Your task to perform on an android device: Clear the cart on costco. Image 0: 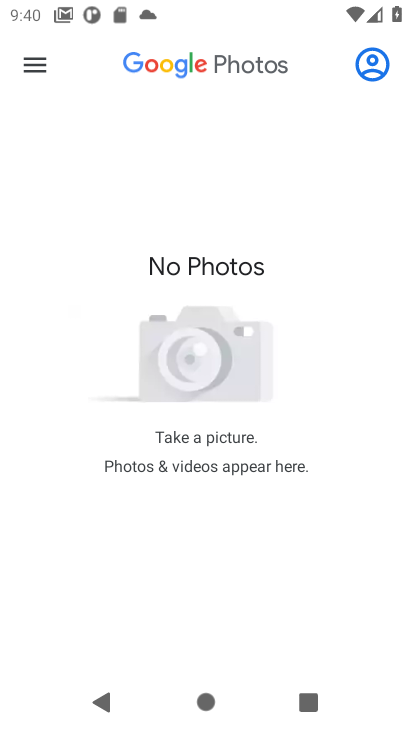
Step 0: press home button
Your task to perform on an android device: Clear the cart on costco. Image 1: 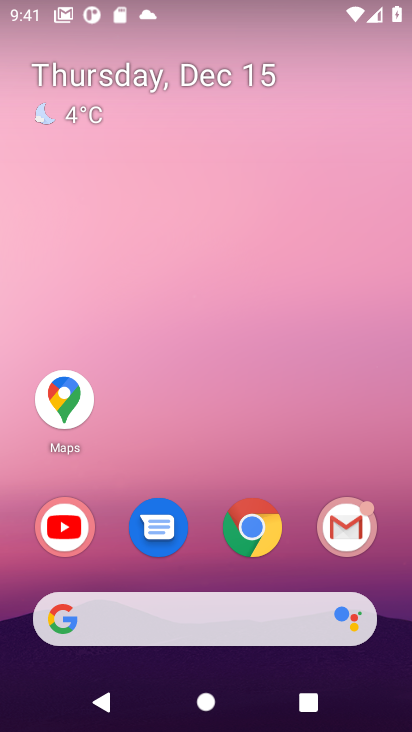
Step 1: click (260, 552)
Your task to perform on an android device: Clear the cart on costco. Image 2: 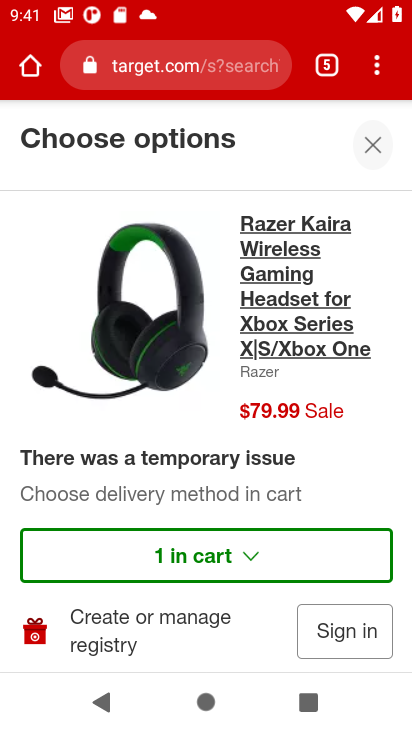
Step 2: click (216, 77)
Your task to perform on an android device: Clear the cart on costco. Image 3: 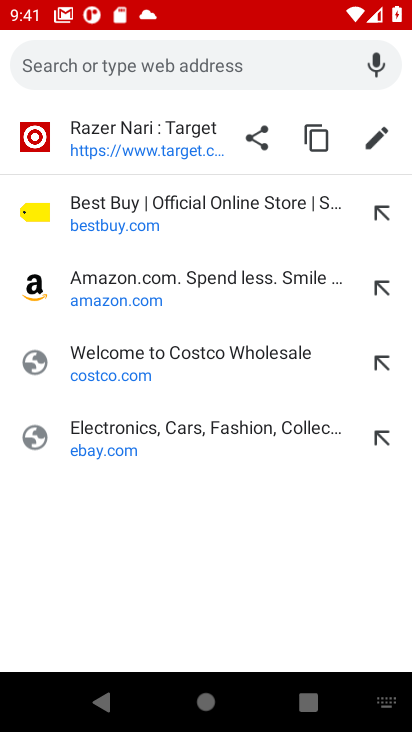
Step 3: click (287, 373)
Your task to perform on an android device: Clear the cart on costco. Image 4: 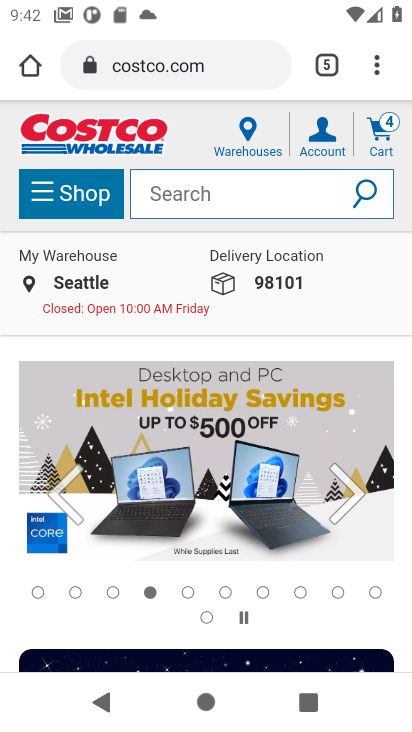
Step 4: click (371, 136)
Your task to perform on an android device: Clear the cart on costco. Image 5: 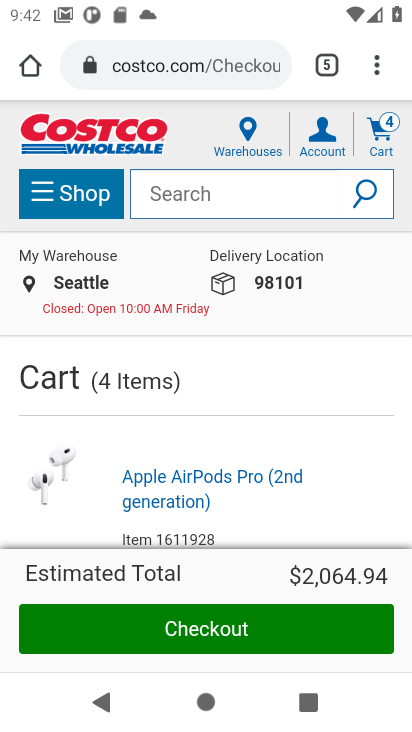
Step 5: drag from (247, 439) to (240, 334)
Your task to perform on an android device: Clear the cart on costco. Image 6: 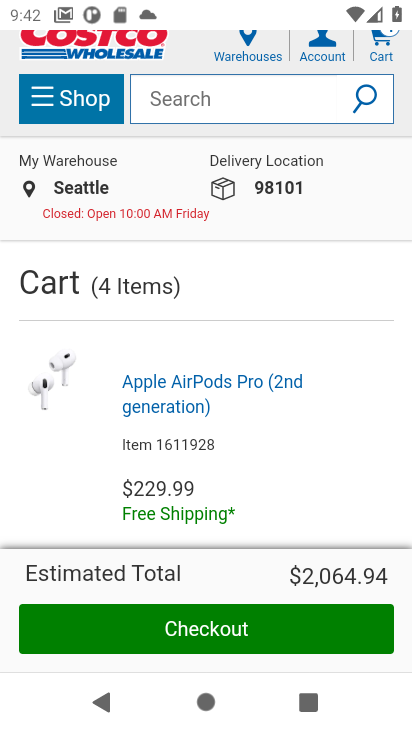
Step 6: drag from (236, 484) to (197, 200)
Your task to perform on an android device: Clear the cart on costco. Image 7: 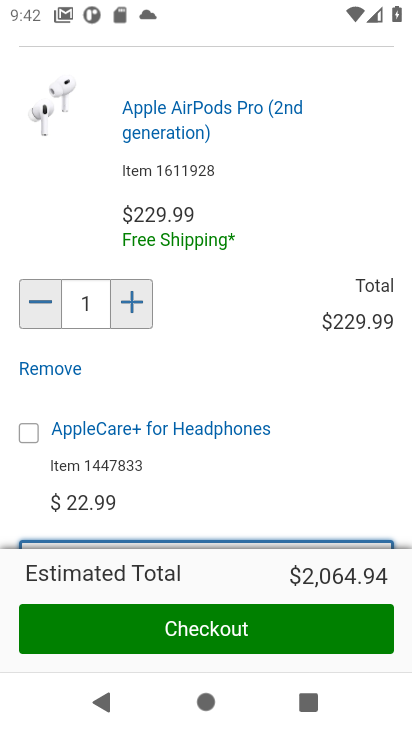
Step 7: drag from (300, 449) to (282, 95)
Your task to perform on an android device: Clear the cart on costco. Image 8: 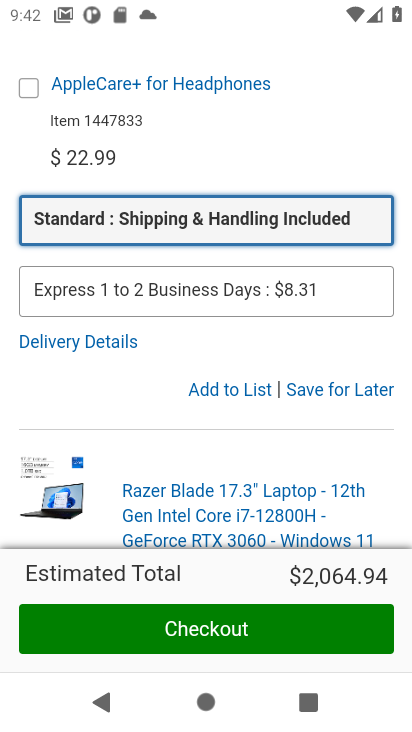
Step 8: drag from (185, 455) to (172, 171)
Your task to perform on an android device: Clear the cart on costco. Image 9: 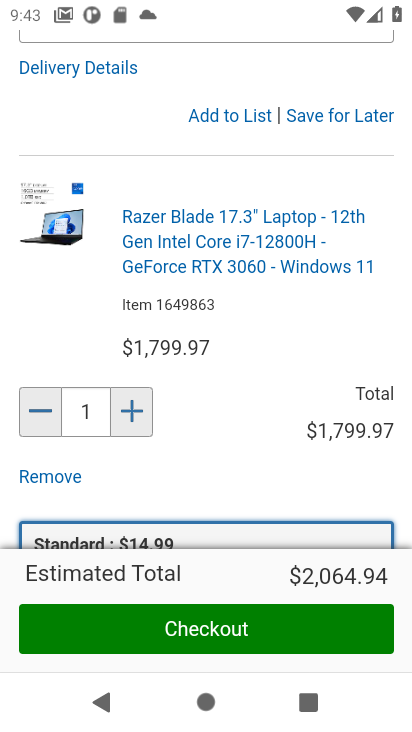
Step 9: drag from (215, 494) to (207, 415)
Your task to perform on an android device: Clear the cart on costco. Image 10: 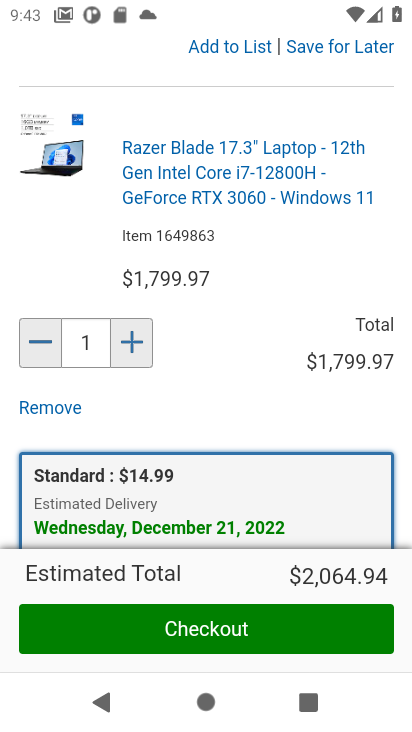
Step 10: click (69, 396)
Your task to perform on an android device: Clear the cart on costco. Image 11: 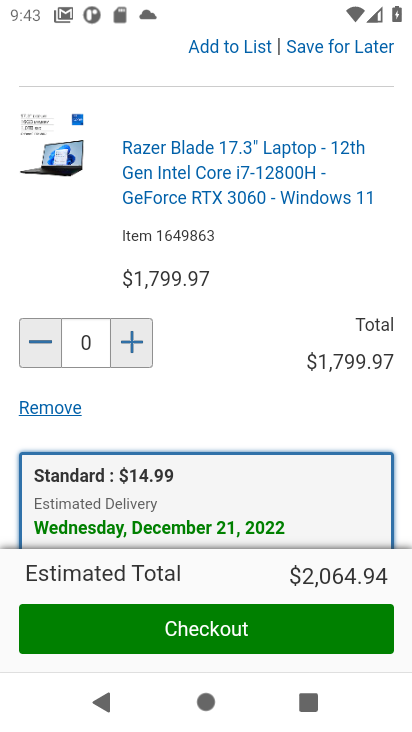
Step 11: click (53, 408)
Your task to perform on an android device: Clear the cart on costco. Image 12: 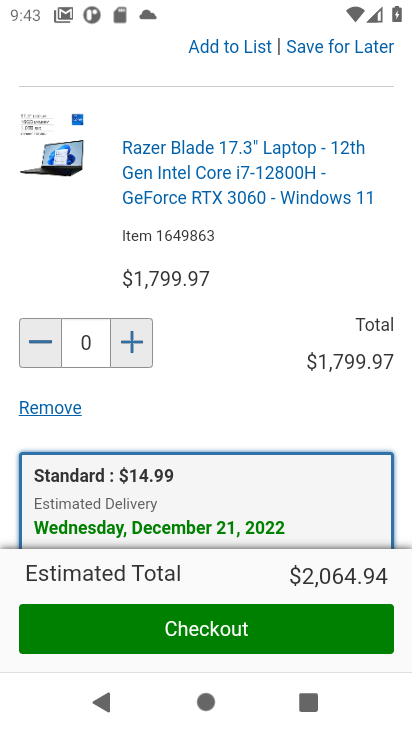
Step 12: drag from (132, 410) to (152, 95)
Your task to perform on an android device: Clear the cart on costco. Image 13: 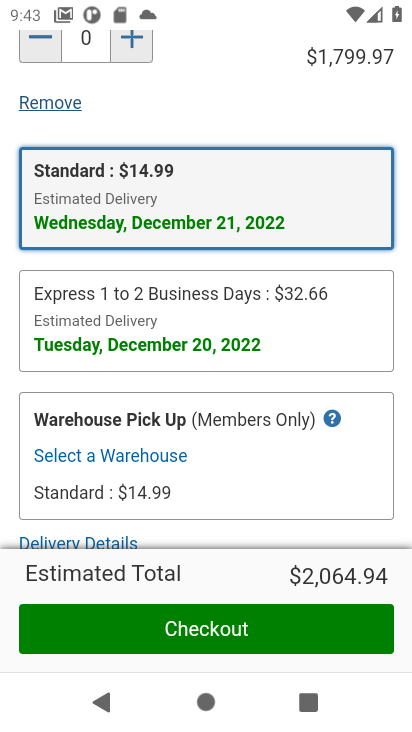
Step 13: drag from (152, 95) to (231, 548)
Your task to perform on an android device: Clear the cart on costco. Image 14: 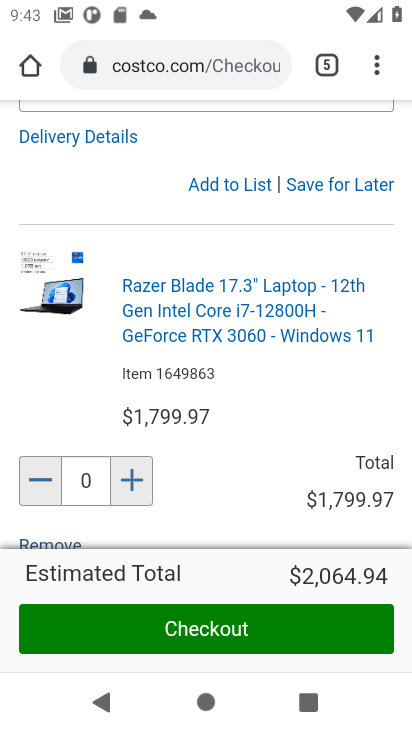
Step 14: drag from (147, 185) to (319, 630)
Your task to perform on an android device: Clear the cart on costco. Image 15: 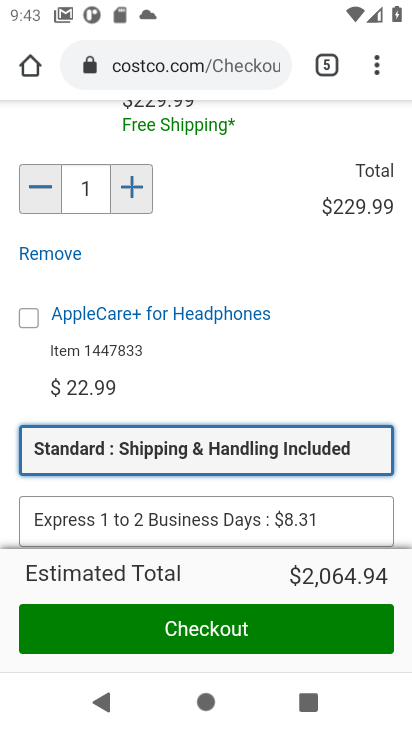
Step 15: click (76, 259)
Your task to perform on an android device: Clear the cart on costco. Image 16: 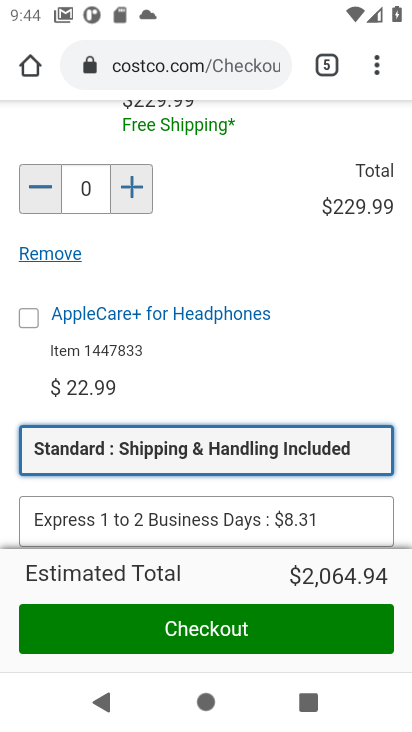
Step 16: task complete